Your task to perform on an android device: Open Wikipedia Image 0: 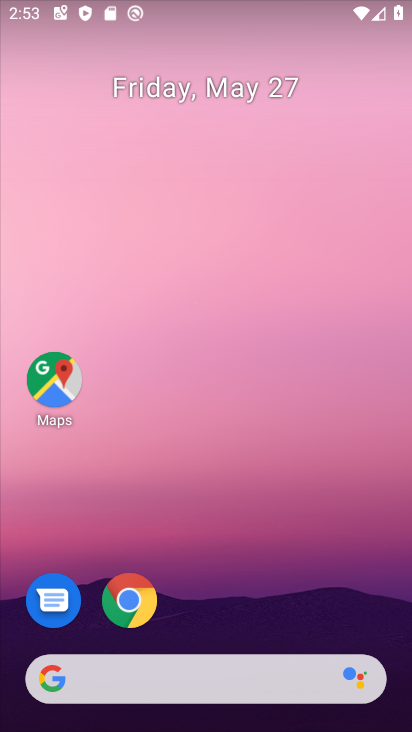
Step 0: drag from (325, 605) to (254, 160)
Your task to perform on an android device: Open Wikipedia Image 1: 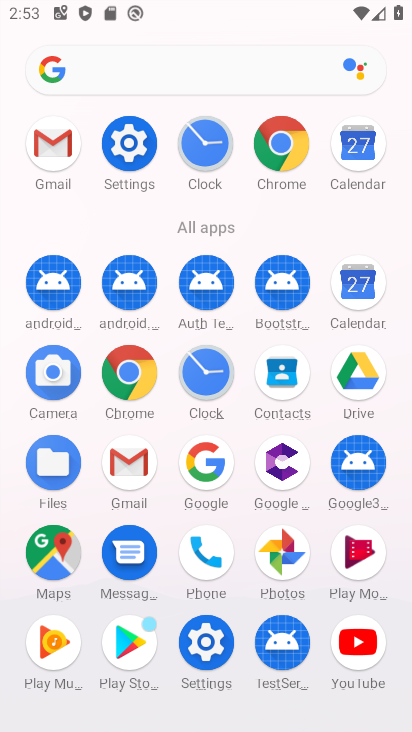
Step 1: click (278, 153)
Your task to perform on an android device: Open Wikipedia Image 2: 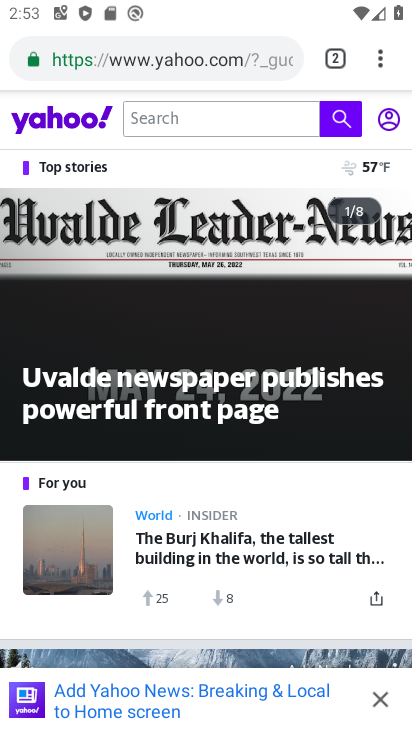
Step 2: click (325, 59)
Your task to perform on an android device: Open Wikipedia Image 3: 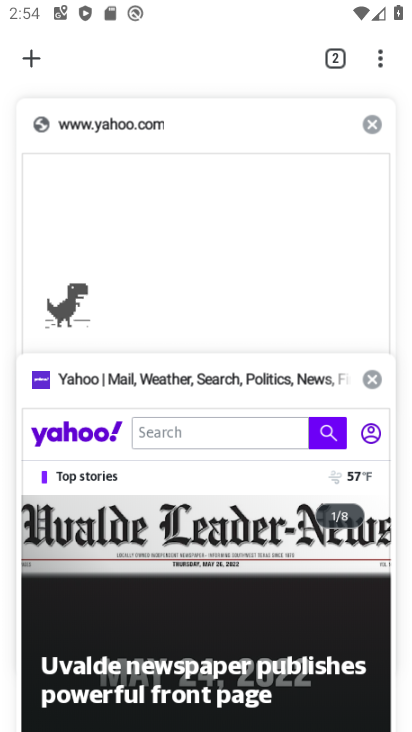
Step 3: click (373, 128)
Your task to perform on an android device: Open Wikipedia Image 4: 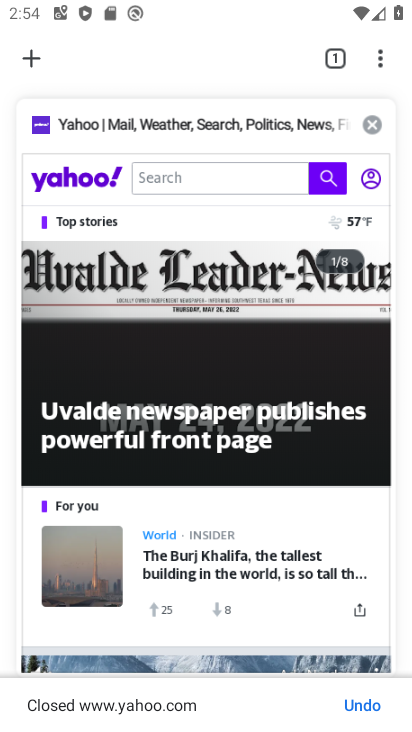
Step 4: click (371, 128)
Your task to perform on an android device: Open Wikipedia Image 5: 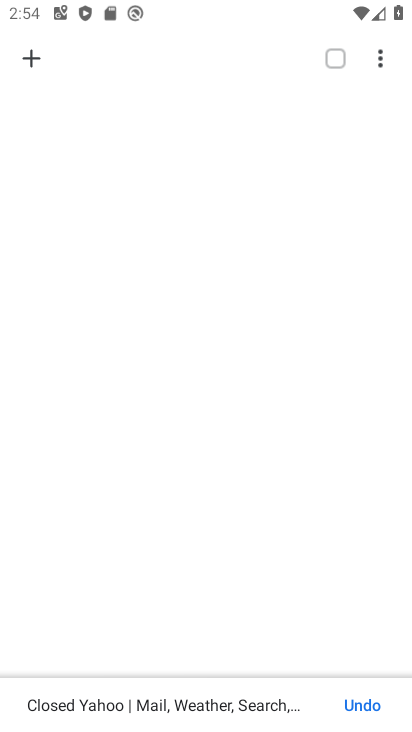
Step 5: click (28, 62)
Your task to perform on an android device: Open Wikipedia Image 6: 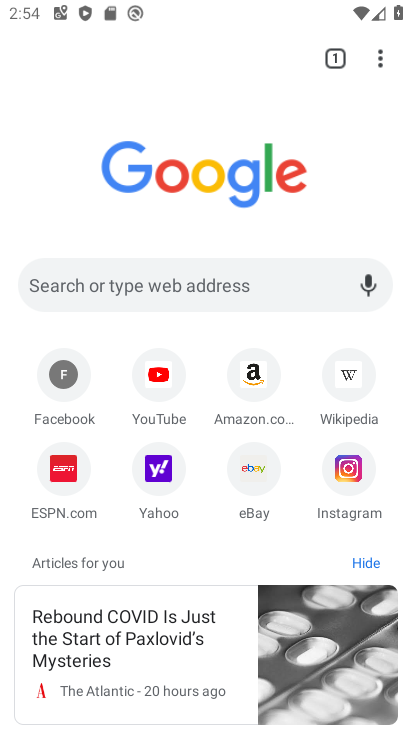
Step 6: click (349, 369)
Your task to perform on an android device: Open Wikipedia Image 7: 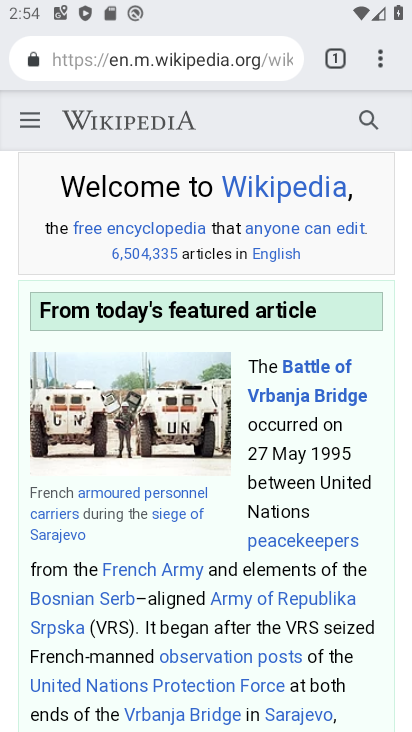
Step 7: task complete